Your task to perform on an android device: move an email to a new category in the gmail app Image 0: 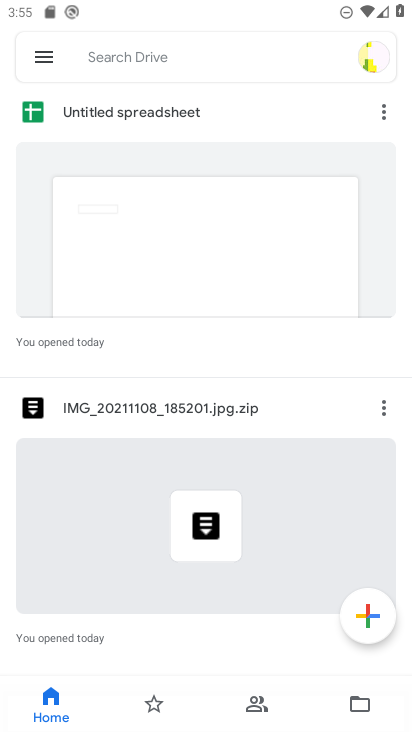
Step 0: press home button
Your task to perform on an android device: move an email to a new category in the gmail app Image 1: 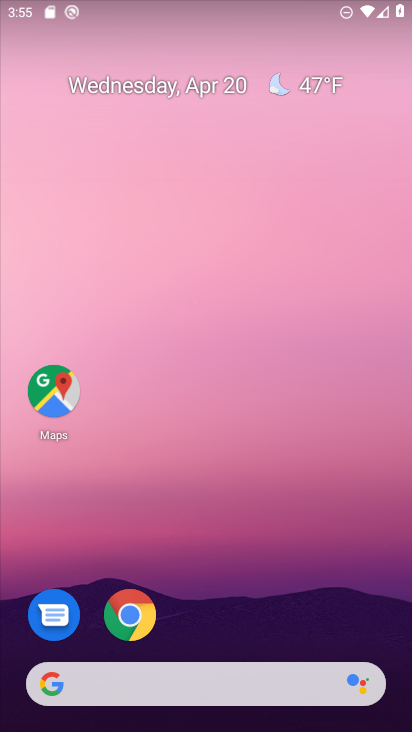
Step 1: drag from (214, 602) to (228, 104)
Your task to perform on an android device: move an email to a new category in the gmail app Image 2: 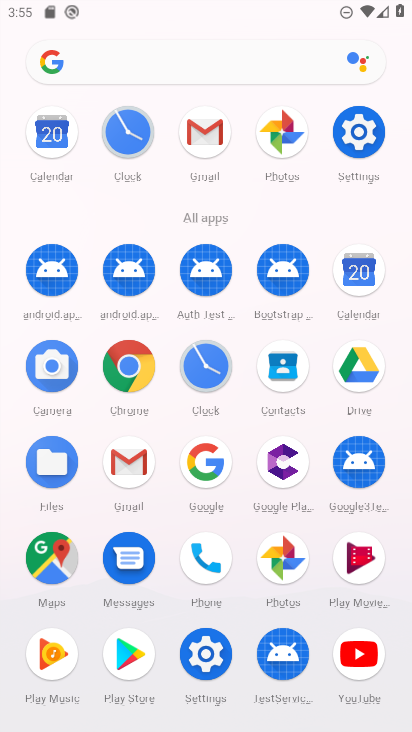
Step 2: click (123, 459)
Your task to perform on an android device: move an email to a new category in the gmail app Image 3: 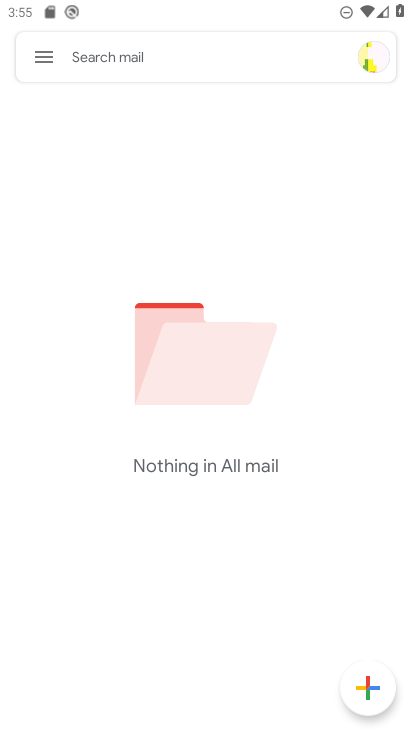
Step 3: click (47, 54)
Your task to perform on an android device: move an email to a new category in the gmail app Image 4: 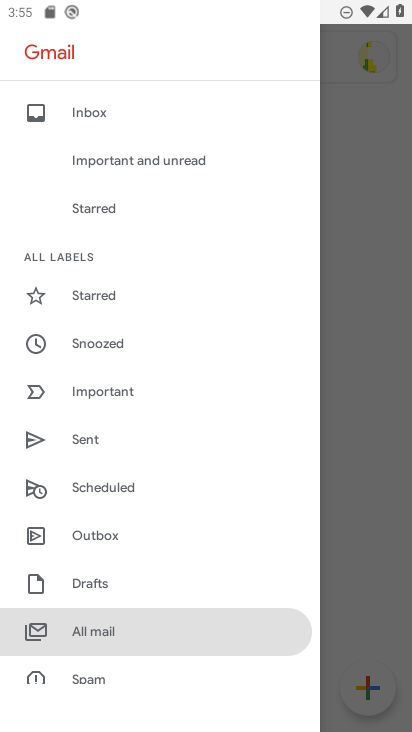
Step 4: click (137, 628)
Your task to perform on an android device: move an email to a new category in the gmail app Image 5: 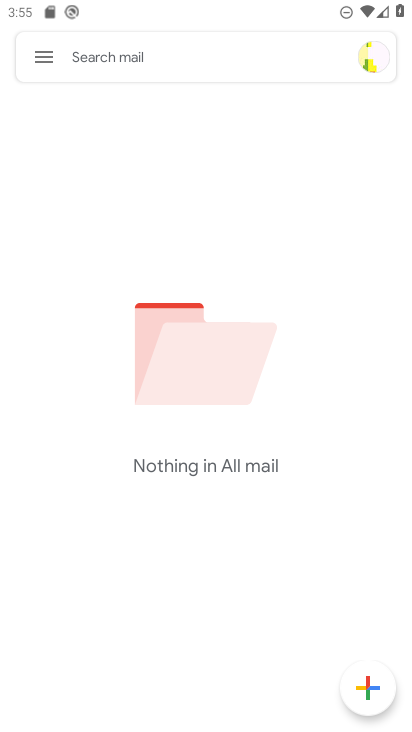
Step 5: task complete